Your task to perform on an android device: install app "Microsoft Outlook" Image 0: 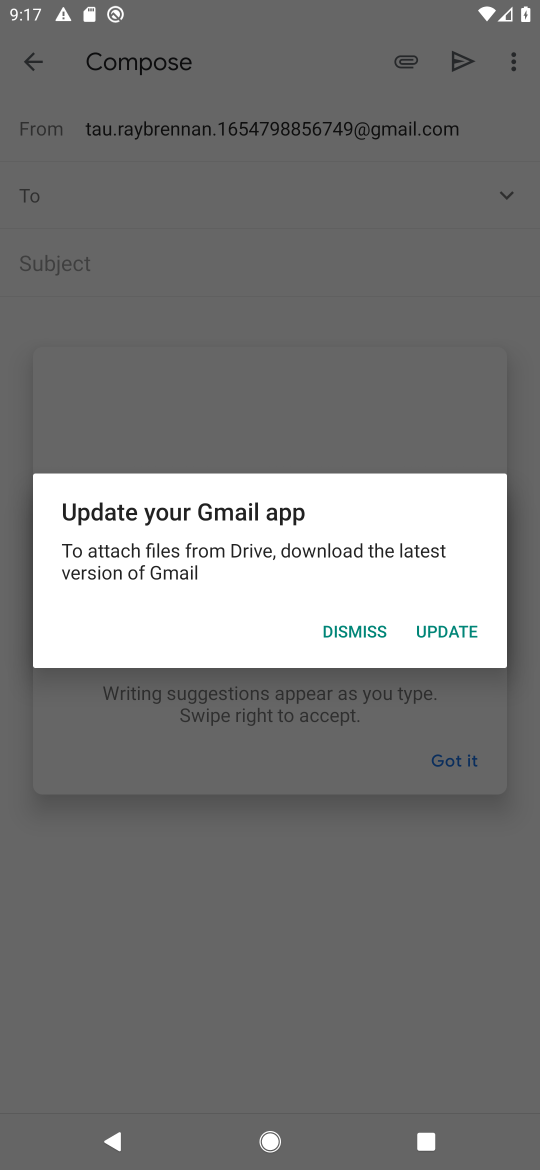
Step 0: press home button
Your task to perform on an android device: install app "Microsoft Outlook" Image 1: 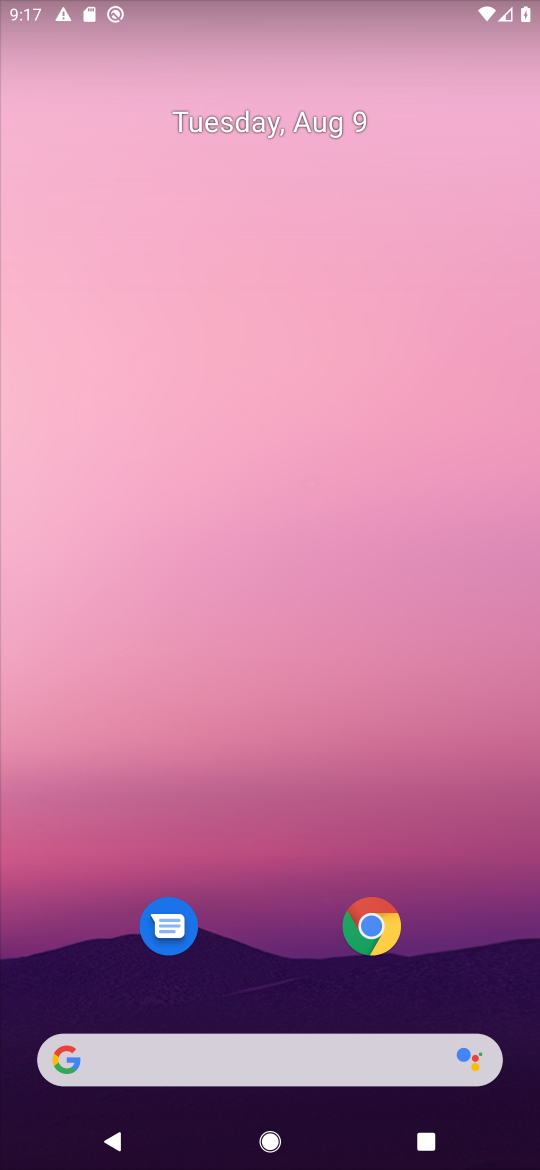
Step 1: drag from (291, 991) to (306, 639)
Your task to perform on an android device: install app "Microsoft Outlook" Image 2: 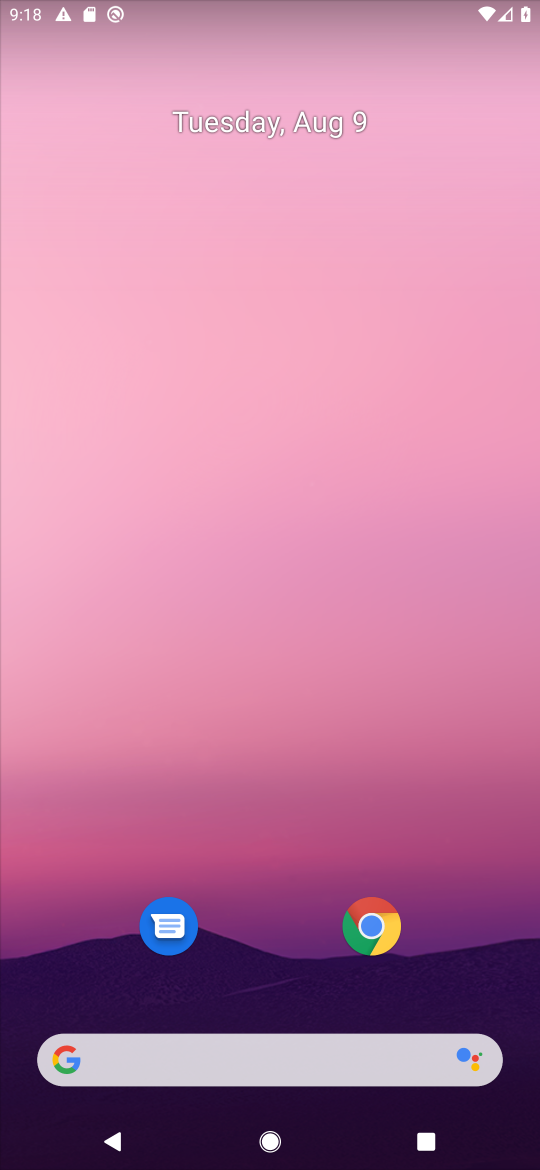
Step 2: drag from (270, 927) to (300, 569)
Your task to perform on an android device: install app "Microsoft Outlook" Image 3: 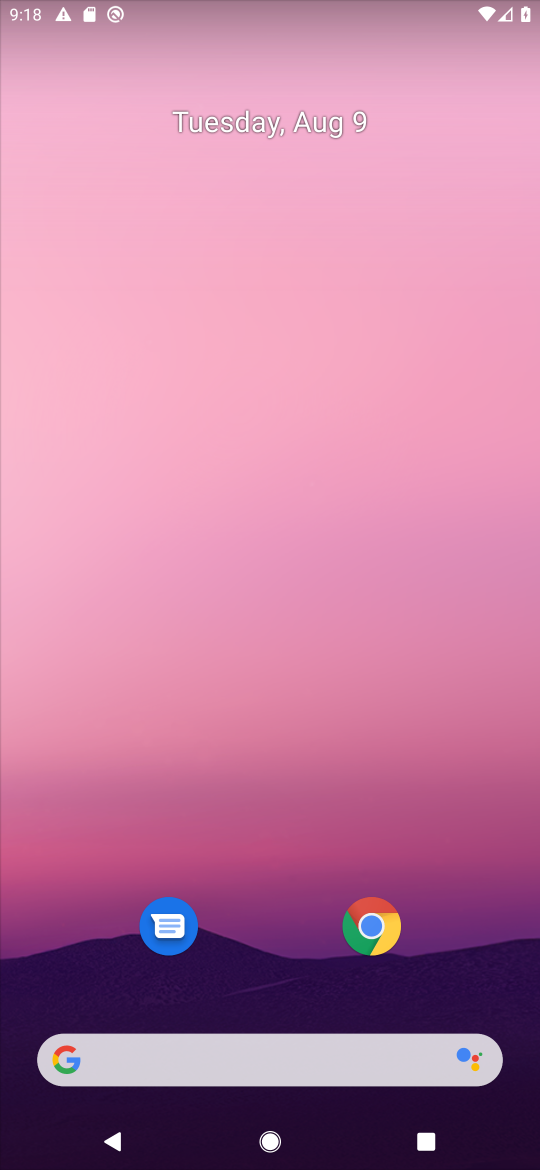
Step 3: drag from (273, 949) to (318, 745)
Your task to perform on an android device: install app "Microsoft Outlook" Image 4: 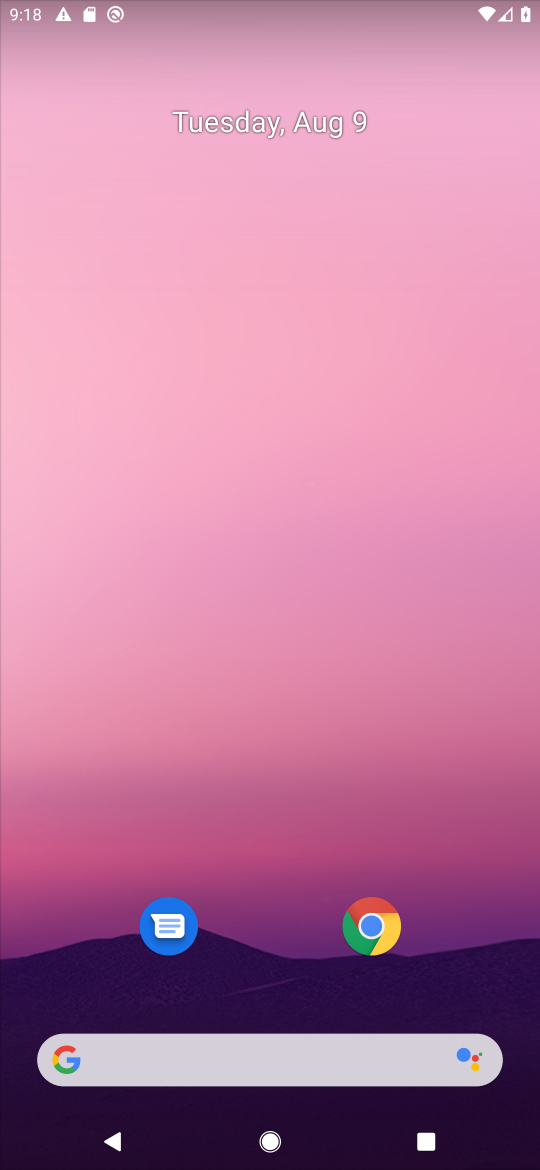
Step 4: drag from (242, 959) to (333, 62)
Your task to perform on an android device: install app "Microsoft Outlook" Image 5: 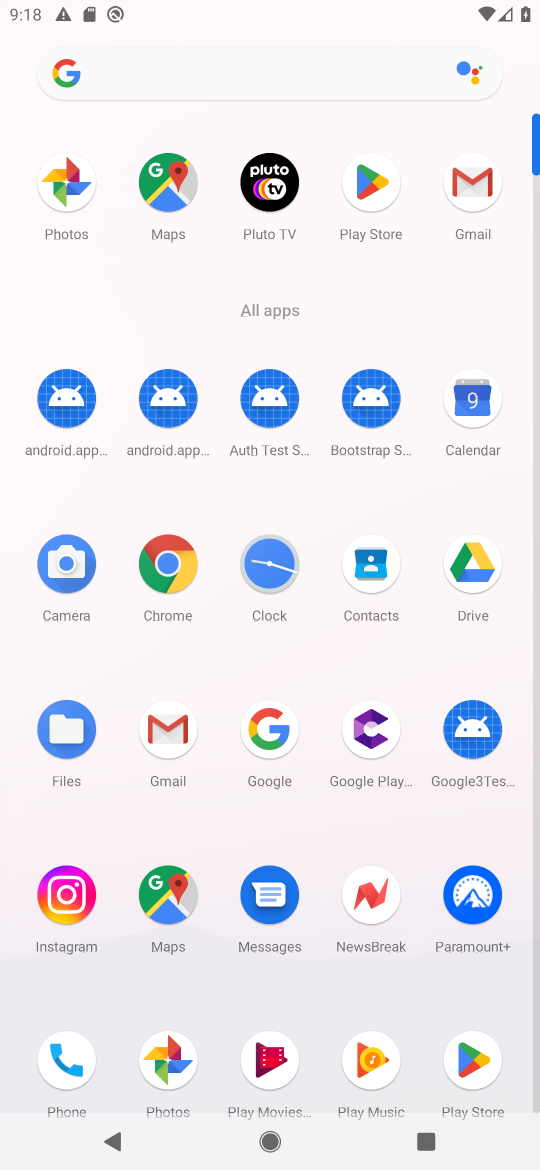
Step 5: click (467, 1053)
Your task to perform on an android device: install app "Microsoft Outlook" Image 6: 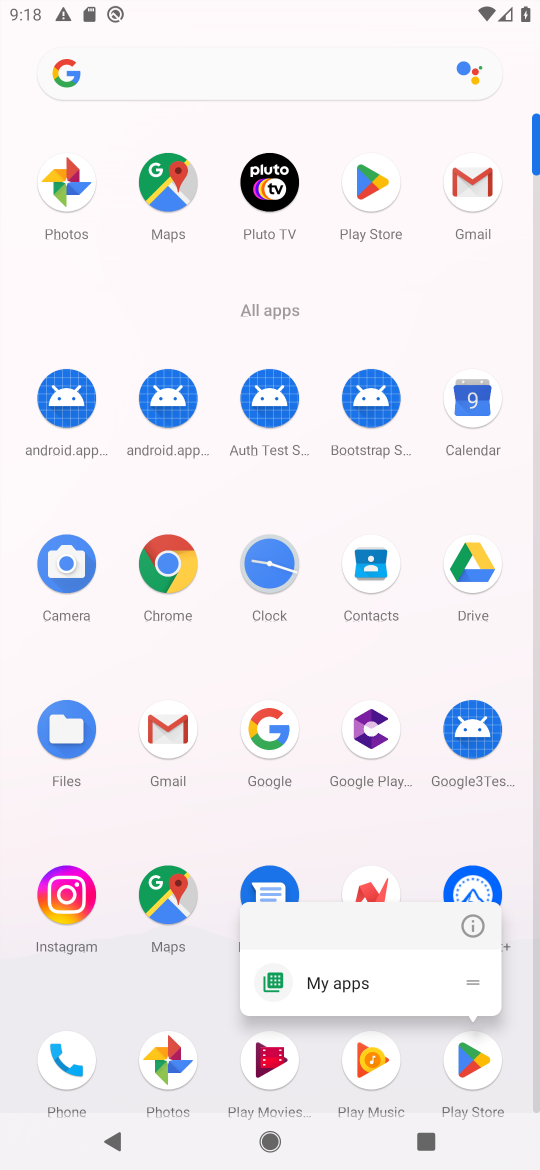
Step 6: click (473, 1063)
Your task to perform on an android device: install app "Microsoft Outlook" Image 7: 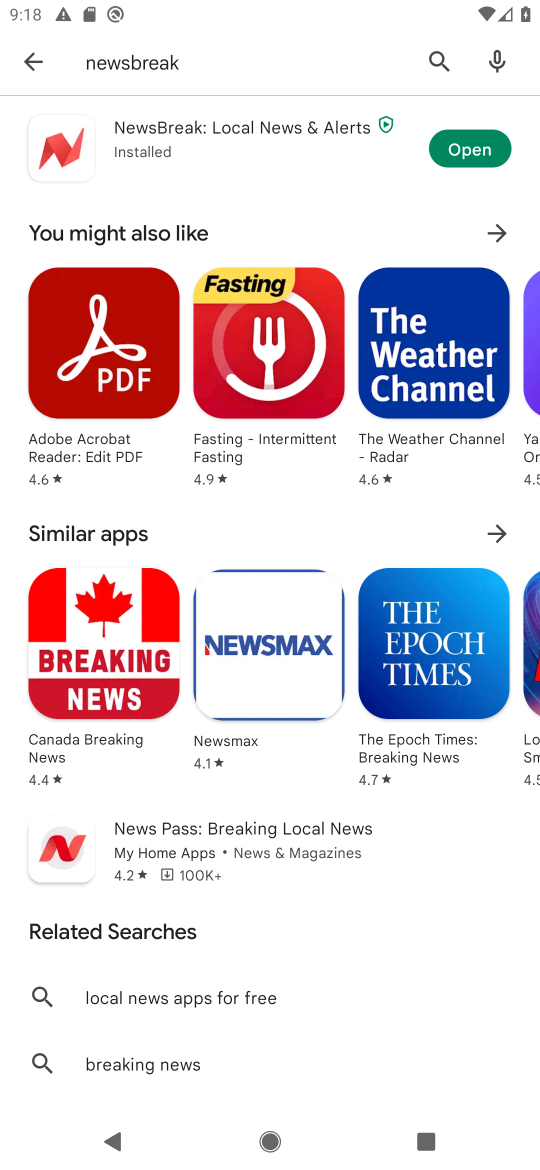
Step 7: click (215, 52)
Your task to perform on an android device: install app "Microsoft Outlook" Image 8: 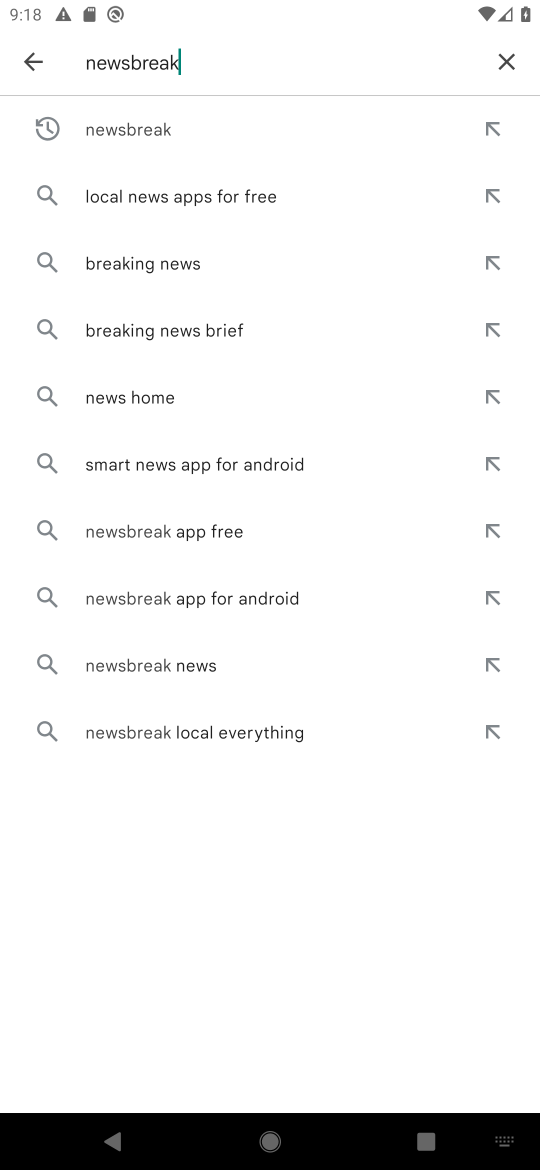
Step 8: click (504, 54)
Your task to perform on an android device: install app "Microsoft Outlook" Image 9: 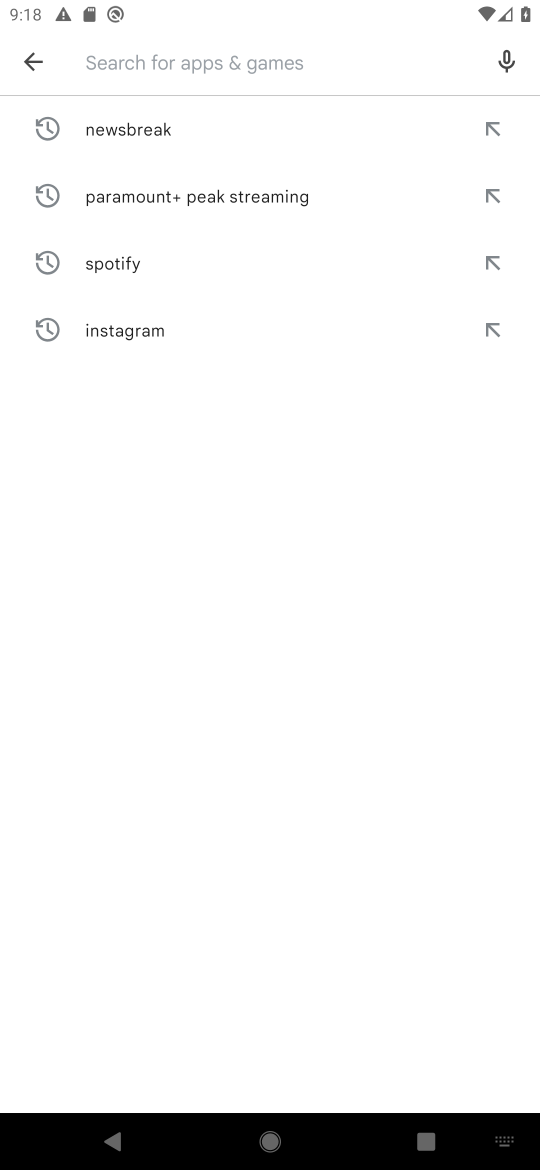
Step 9: type "microsoft Outlook"
Your task to perform on an android device: install app "Microsoft Outlook" Image 10: 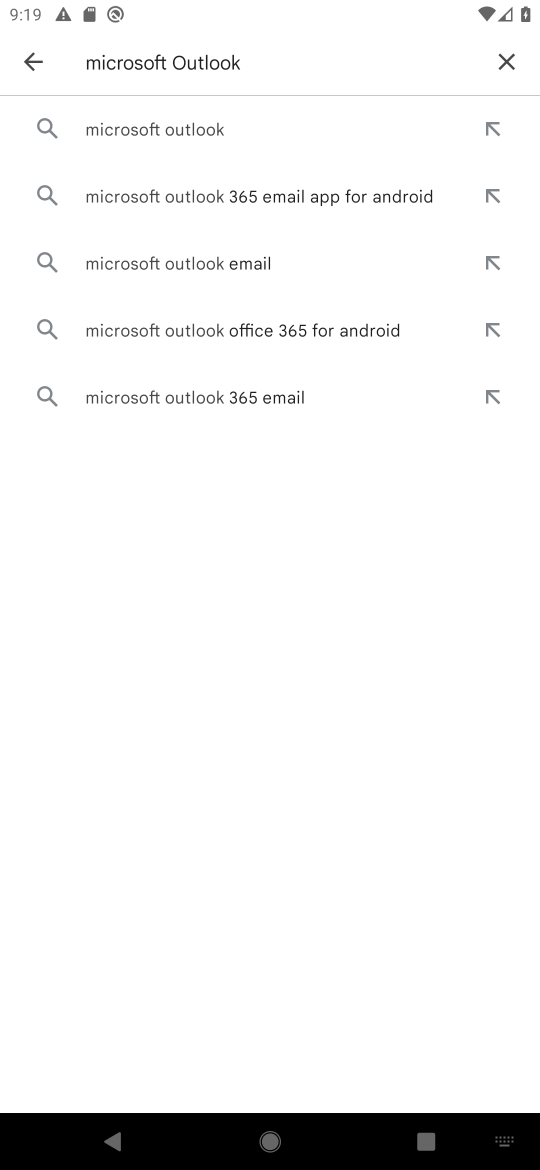
Step 10: click (121, 123)
Your task to perform on an android device: install app "Microsoft Outlook" Image 11: 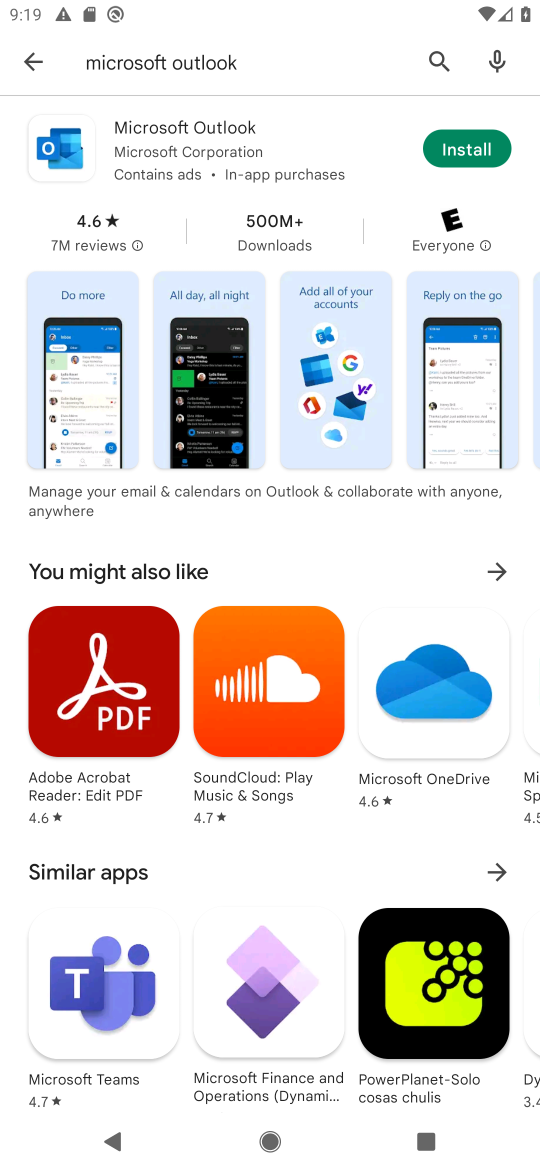
Step 11: click (462, 147)
Your task to perform on an android device: install app "Microsoft Outlook" Image 12: 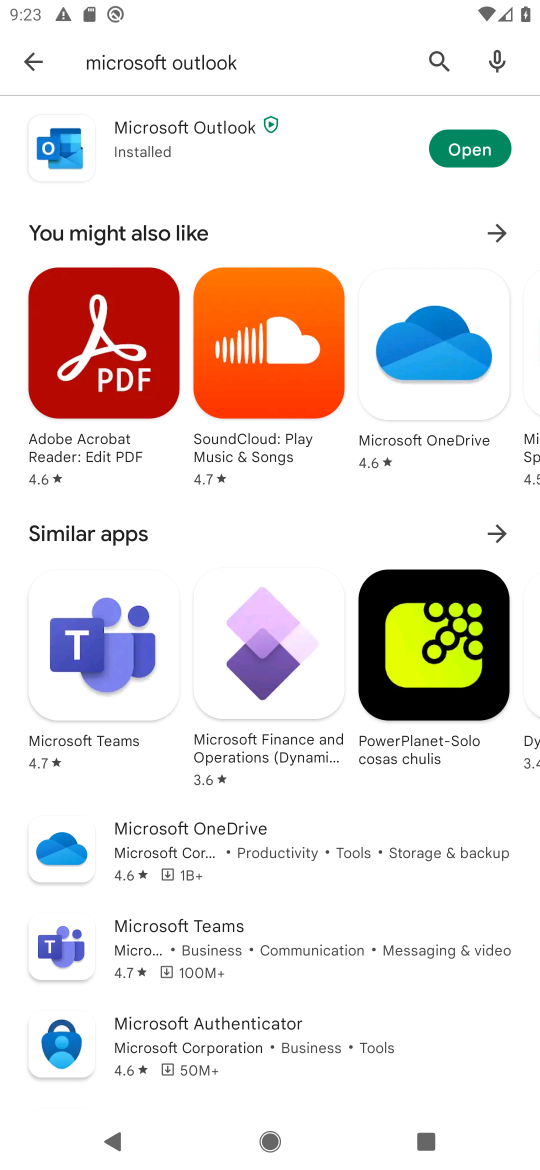
Step 12: task complete